Your task to perform on an android device: open a new tab in the chrome app Image 0: 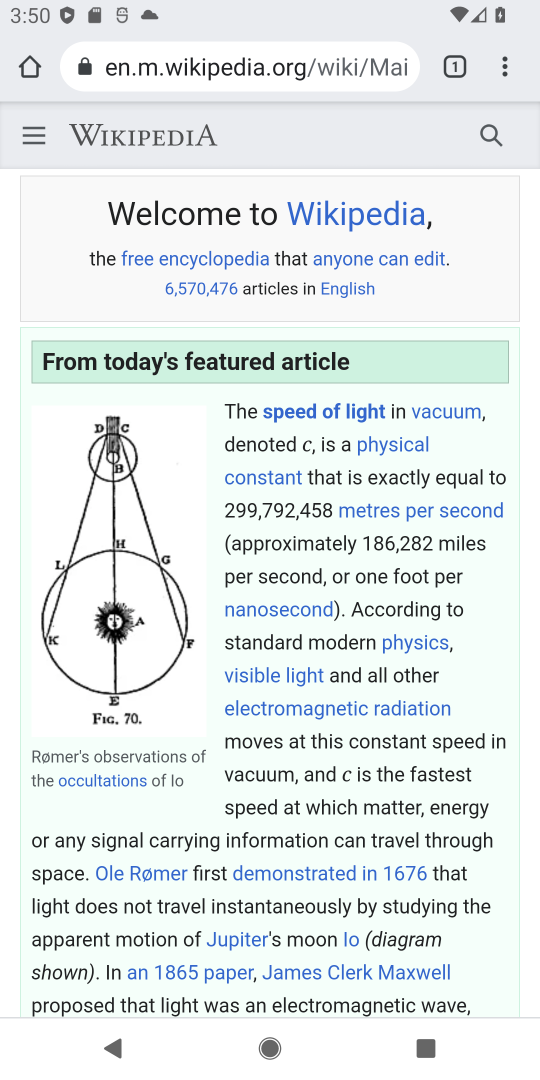
Step 0: press home button
Your task to perform on an android device: open a new tab in the chrome app Image 1: 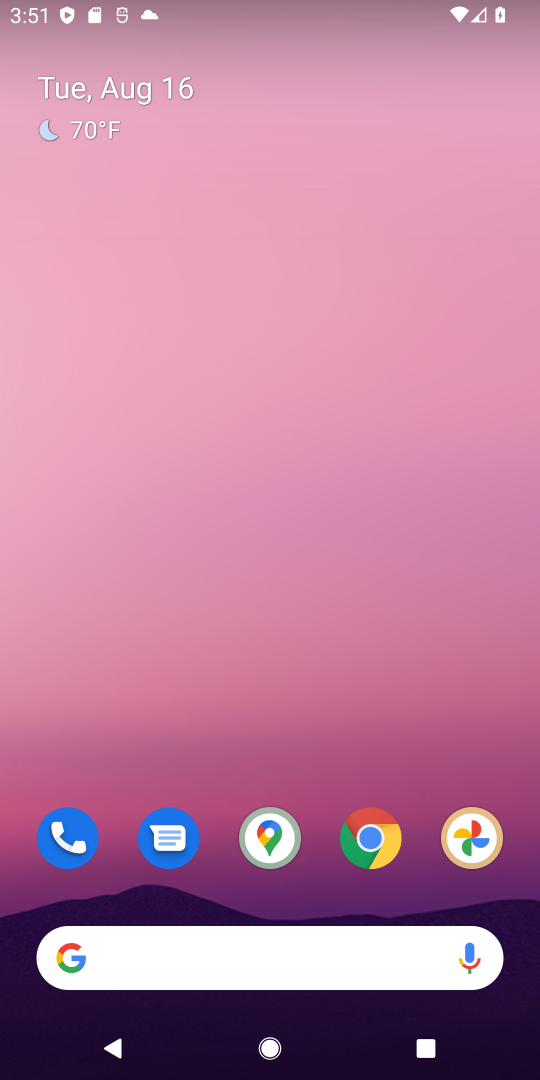
Step 1: click (385, 840)
Your task to perform on an android device: open a new tab in the chrome app Image 2: 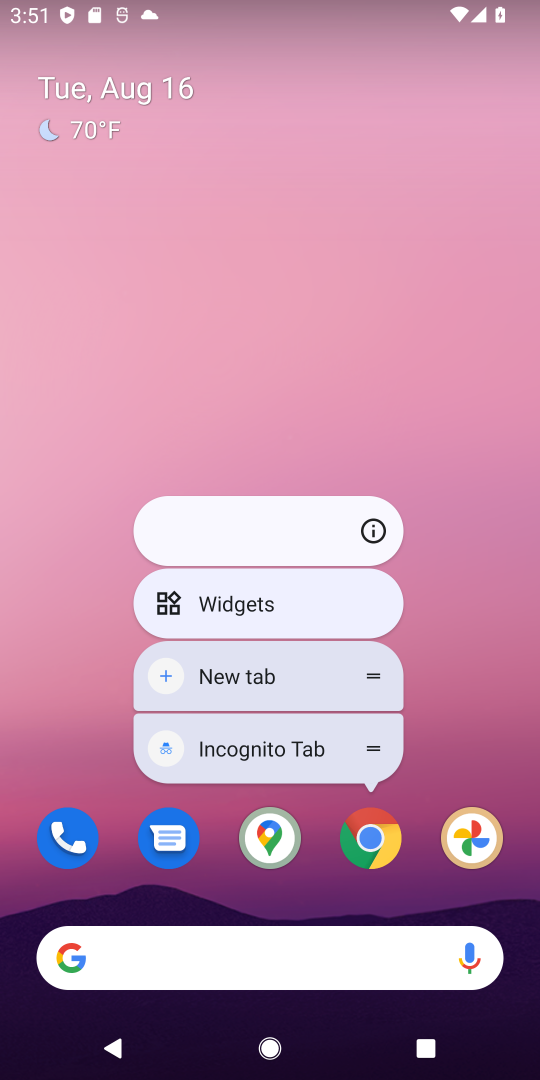
Step 2: click (385, 840)
Your task to perform on an android device: open a new tab in the chrome app Image 3: 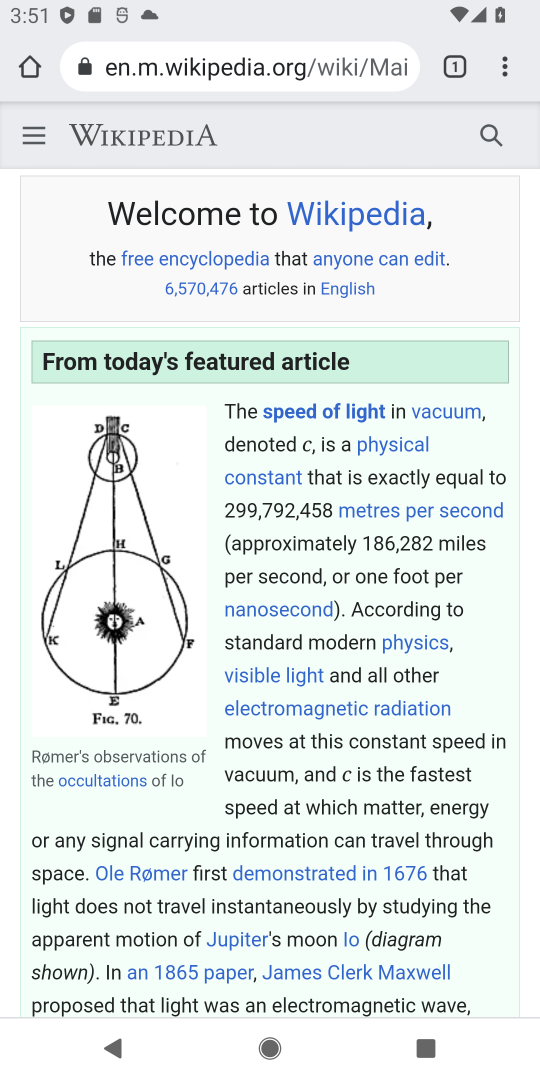
Step 3: task complete